Your task to perform on an android device: set an alarm Image 0: 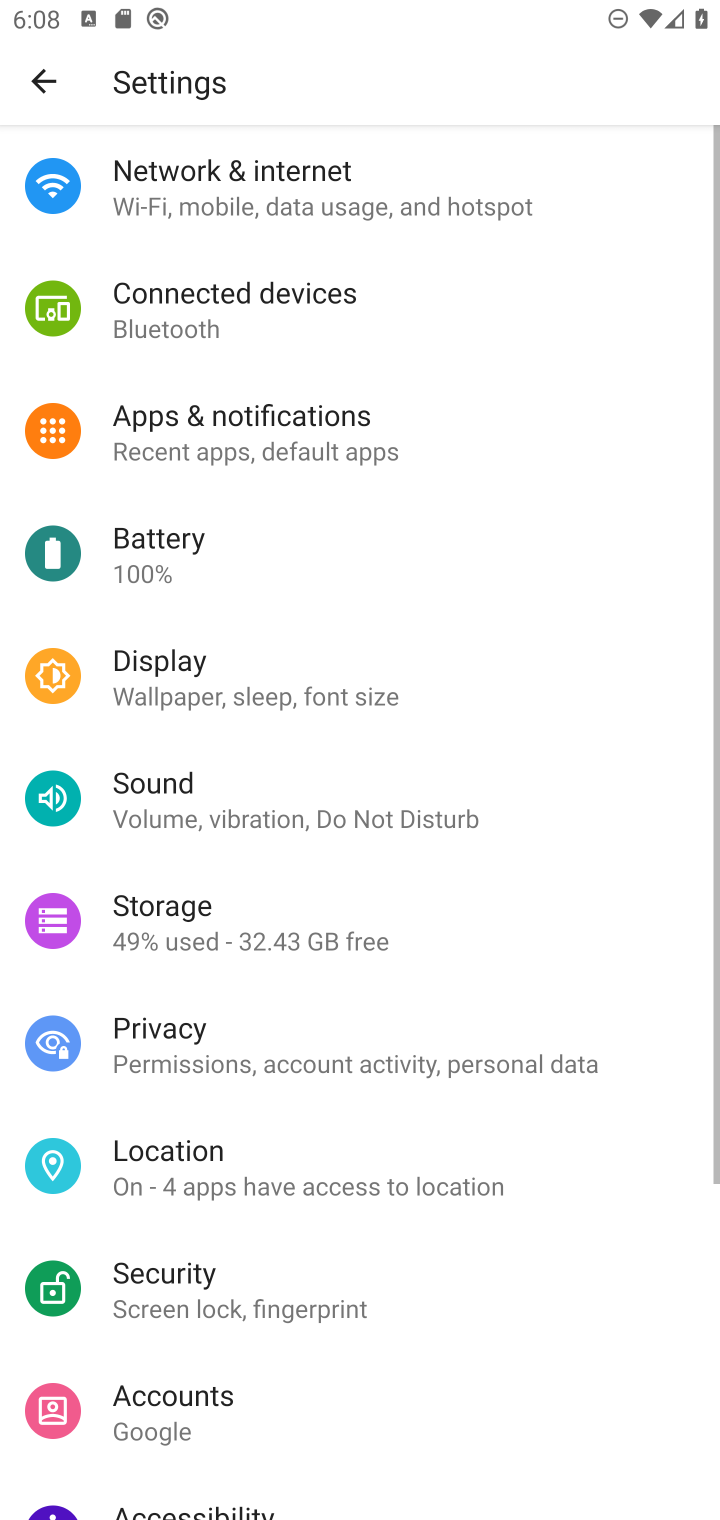
Step 0: press home button
Your task to perform on an android device: set an alarm Image 1: 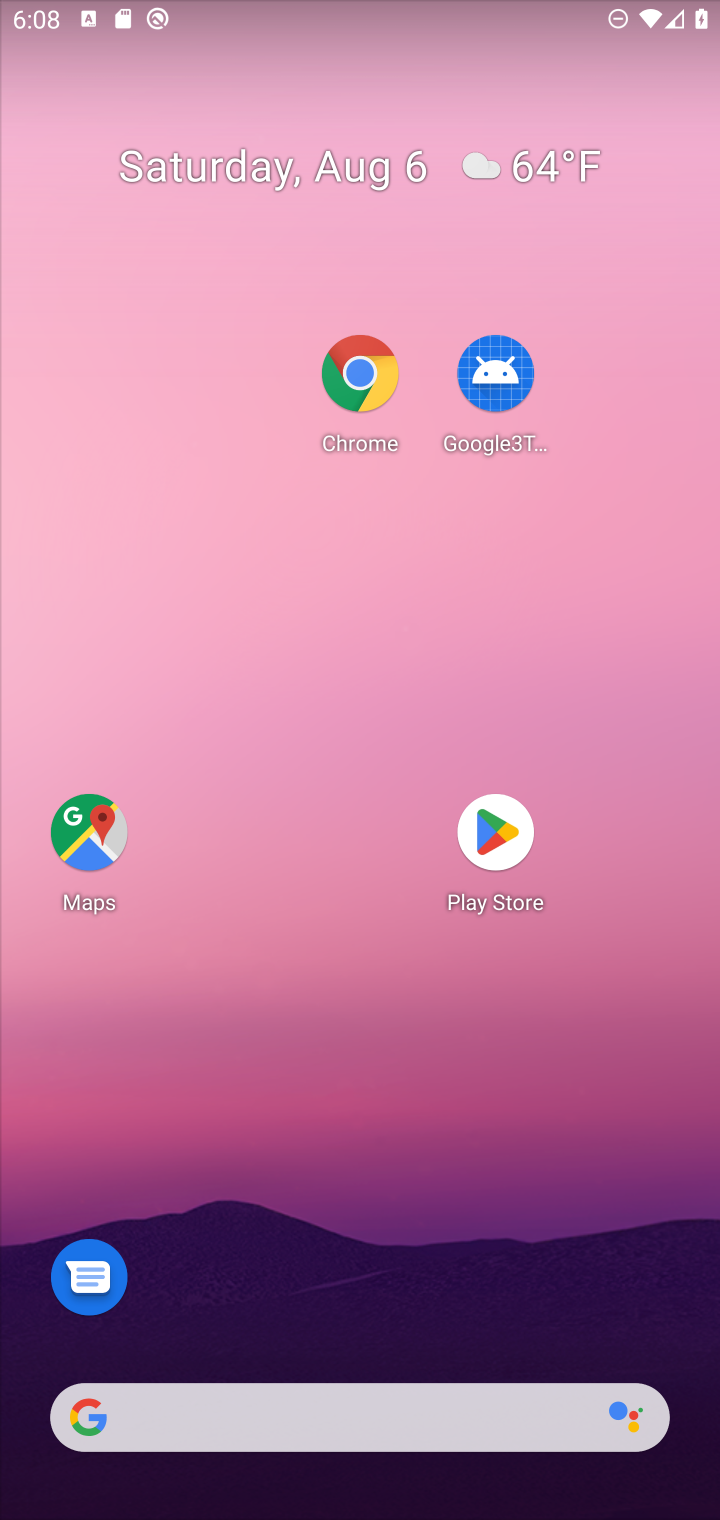
Step 1: drag from (402, 1373) to (108, 115)
Your task to perform on an android device: set an alarm Image 2: 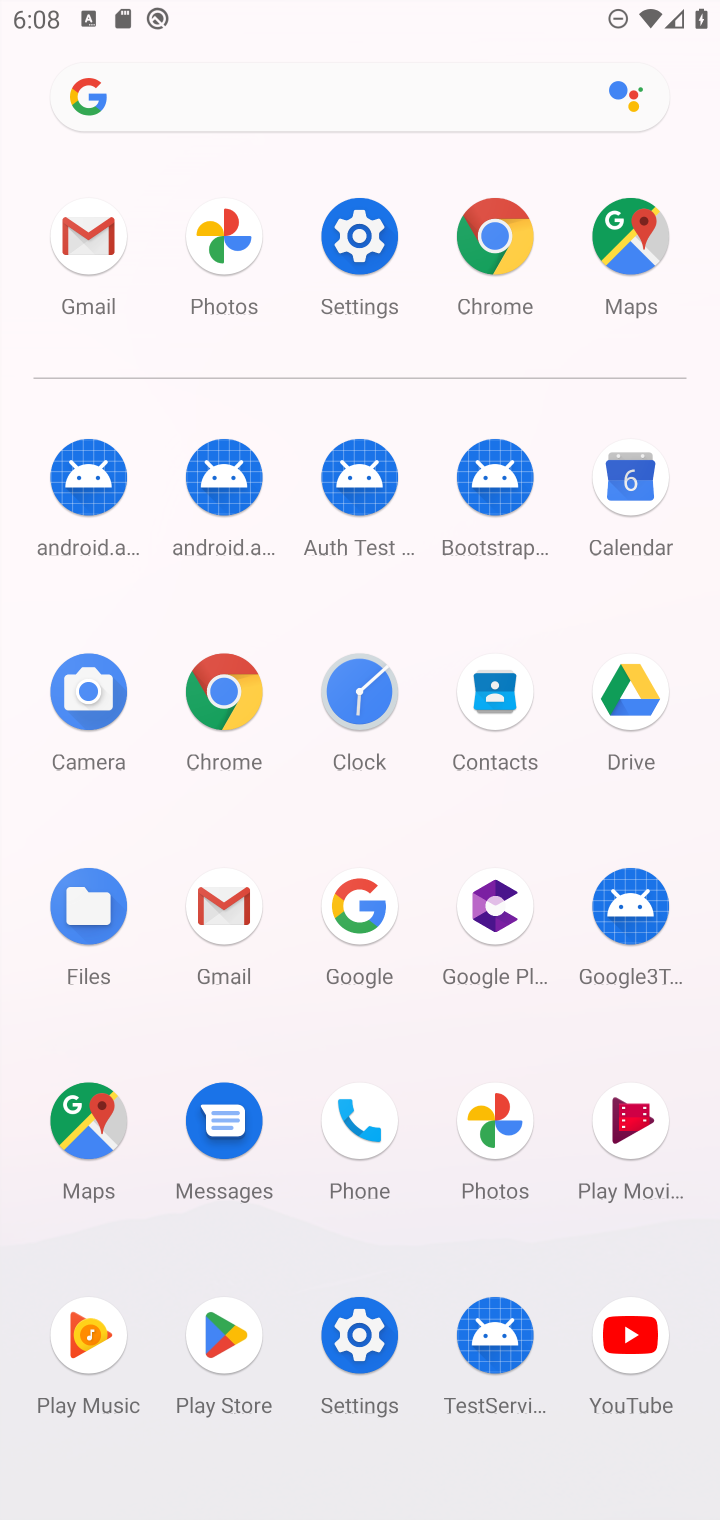
Step 2: click (344, 704)
Your task to perform on an android device: set an alarm Image 3: 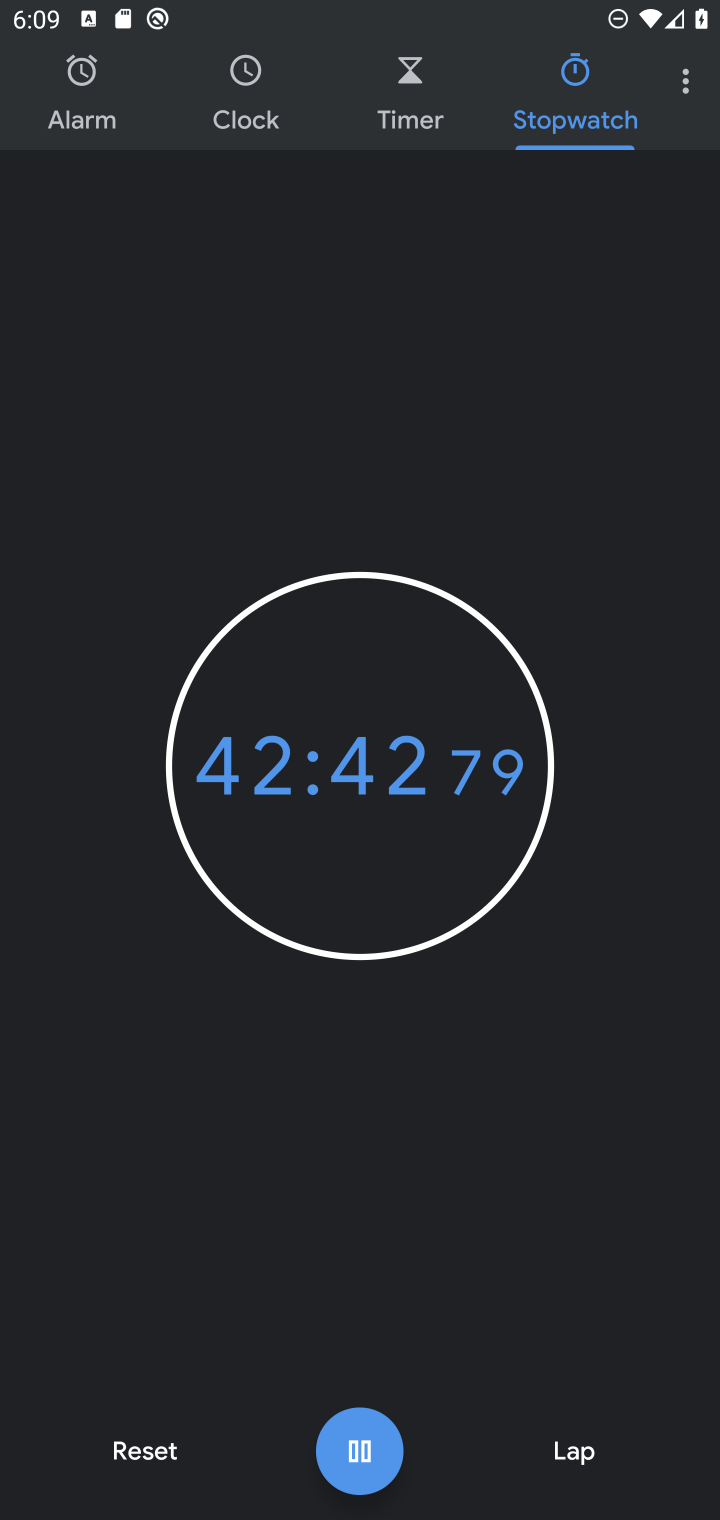
Step 3: click (55, 71)
Your task to perform on an android device: set an alarm Image 4: 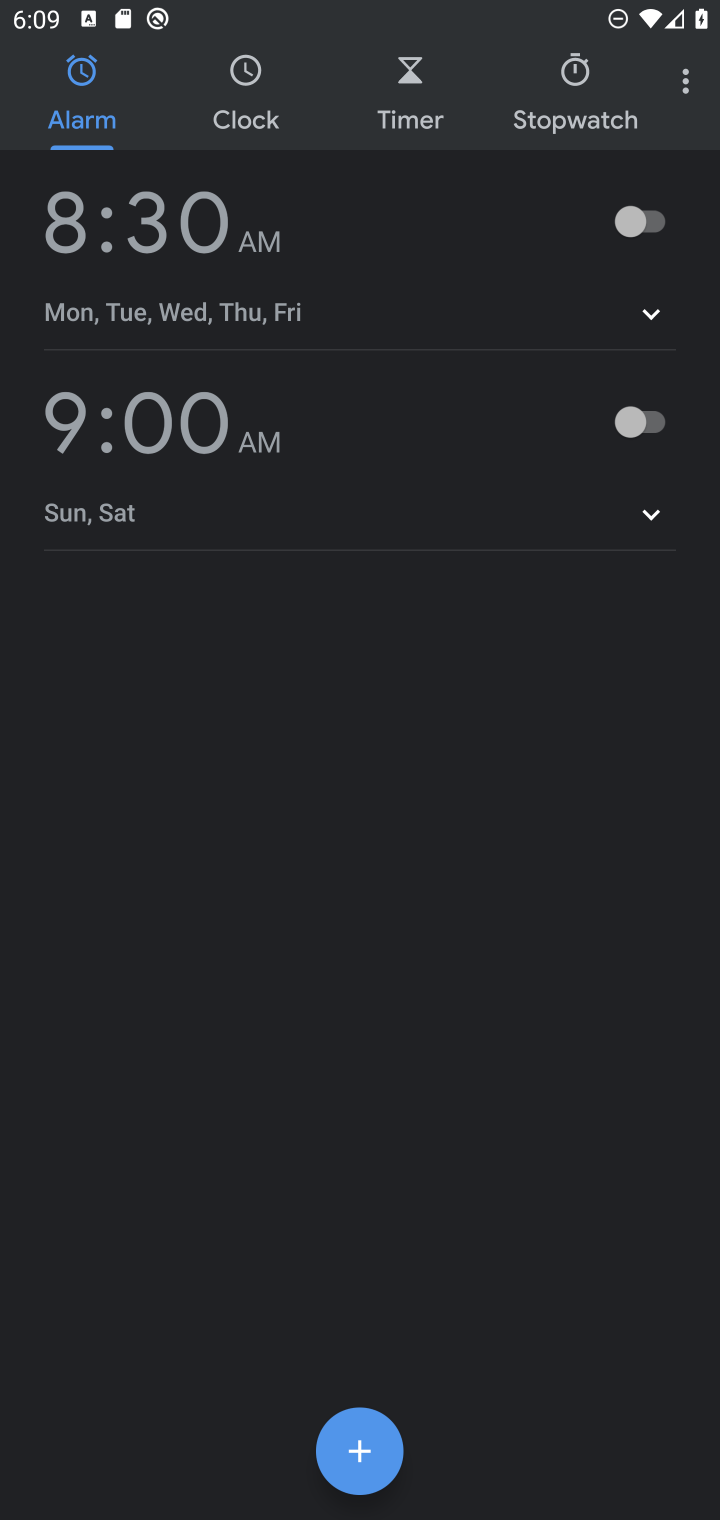
Step 4: click (655, 224)
Your task to perform on an android device: set an alarm Image 5: 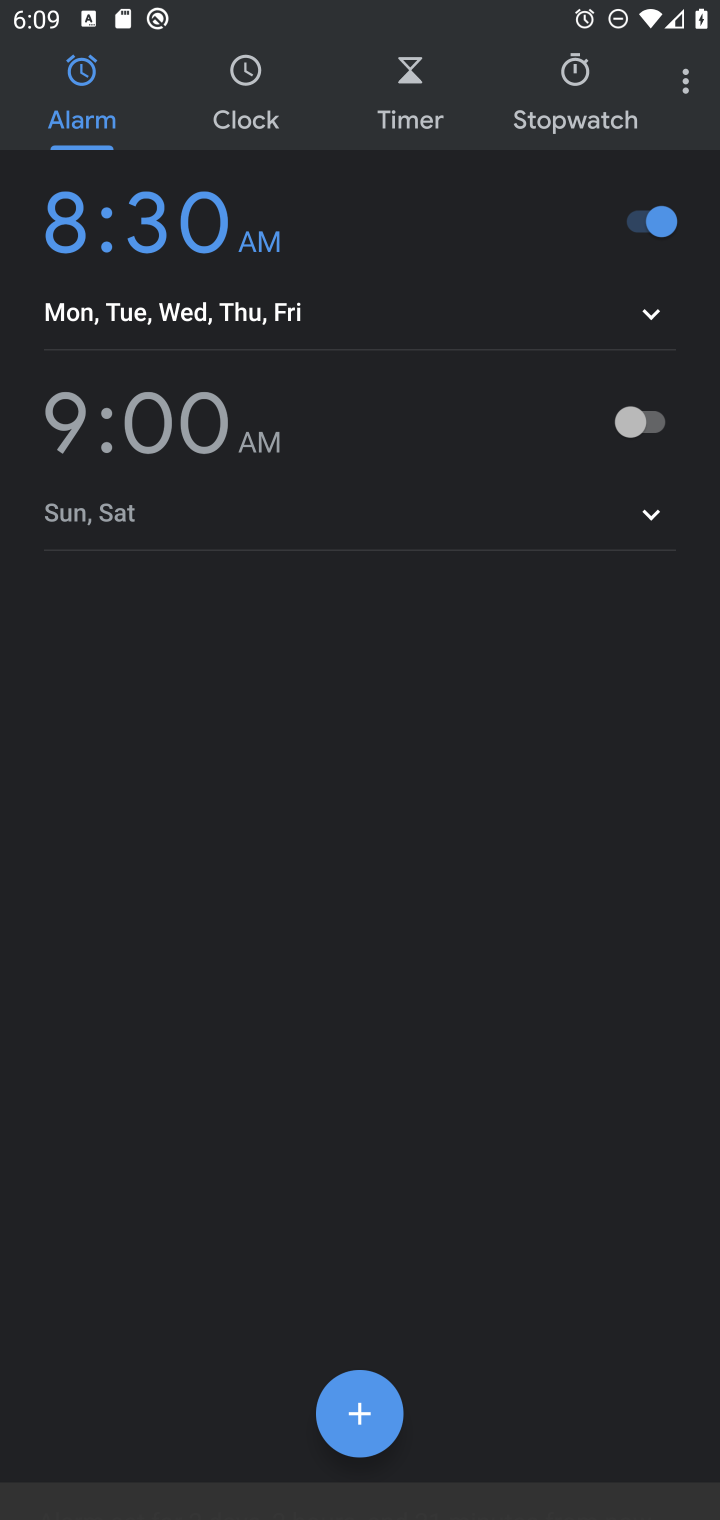
Step 5: task complete